Your task to perform on an android device: turn pop-ups on in chrome Image 0: 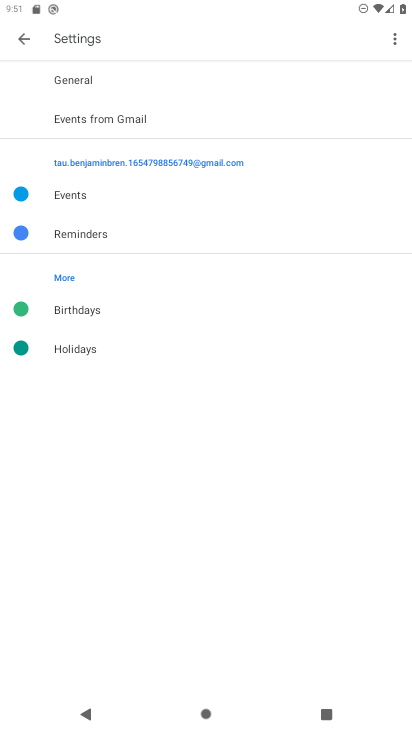
Step 0: press home button
Your task to perform on an android device: turn pop-ups on in chrome Image 1: 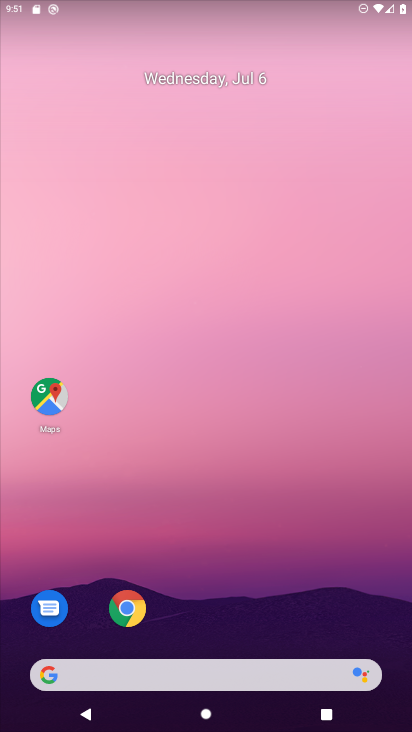
Step 1: click (121, 598)
Your task to perform on an android device: turn pop-ups on in chrome Image 2: 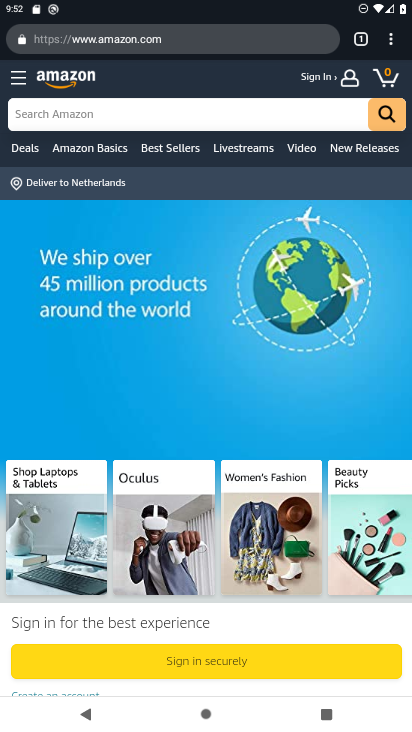
Step 2: click (386, 38)
Your task to perform on an android device: turn pop-ups on in chrome Image 3: 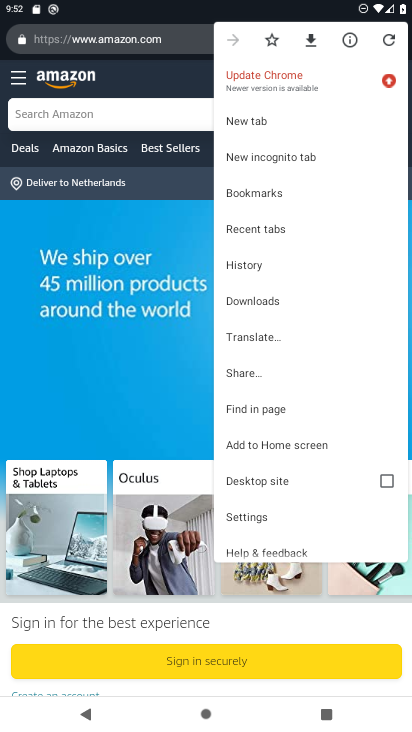
Step 3: click (249, 523)
Your task to perform on an android device: turn pop-ups on in chrome Image 4: 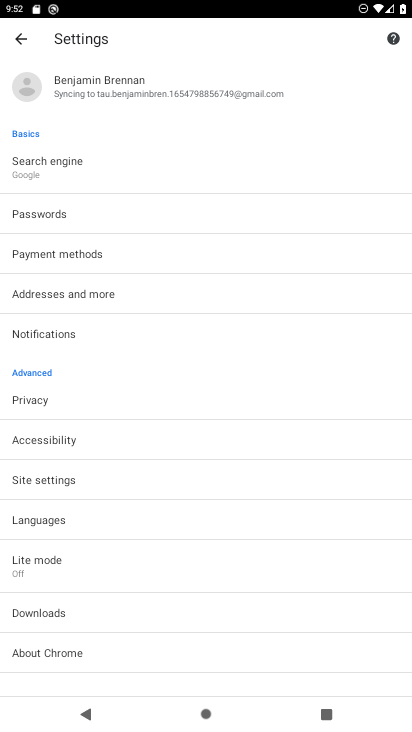
Step 4: click (40, 484)
Your task to perform on an android device: turn pop-ups on in chrome Image 5: 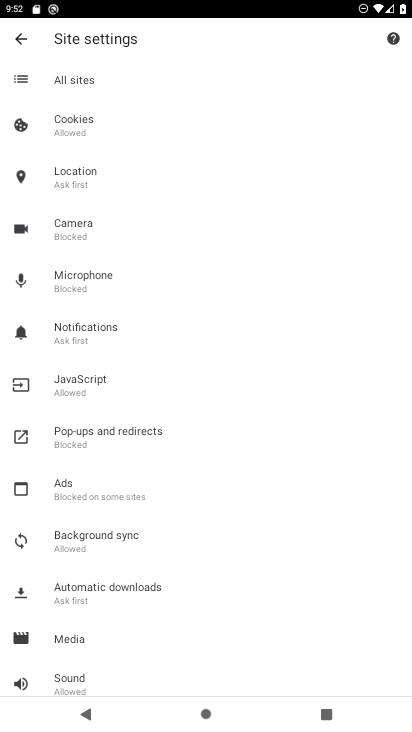
Step 5: click (87, 444)
Your task to perform on an android device: turn pop-ups on in chrome Image 6: 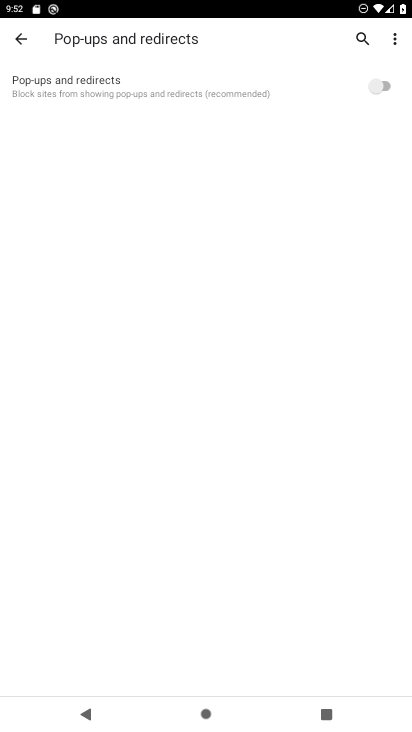
Step 6: click (384, 83)
Your task to perform on an android device: turn pop-ups on in chrome Image 7: 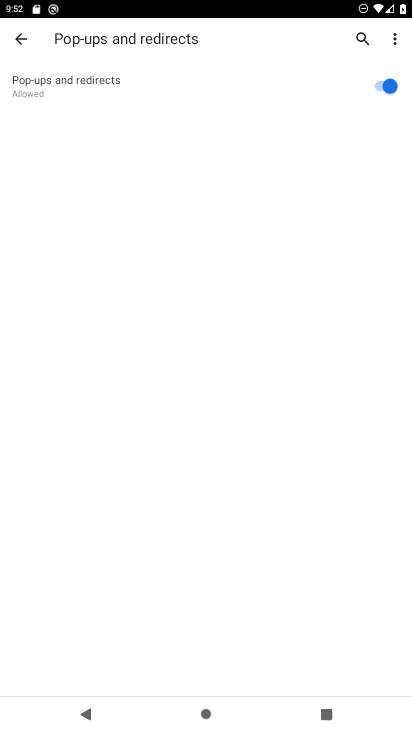
Step 7: task complete